Your task to perform on an android device: change the clock style Image 0: 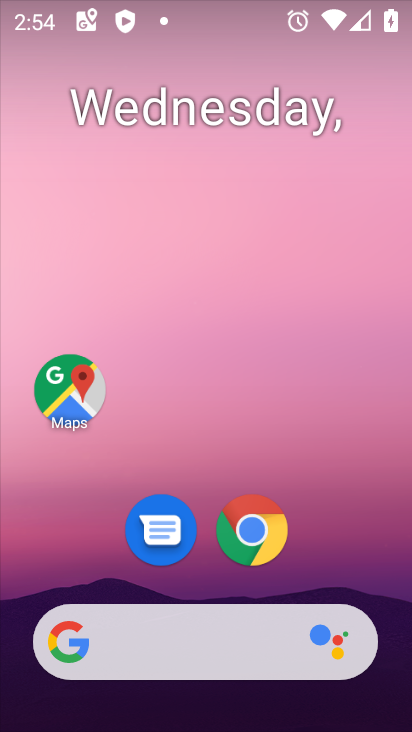
Step 0: click (141, 23)
Your task to perform on an android device: change the clock style Image 1: 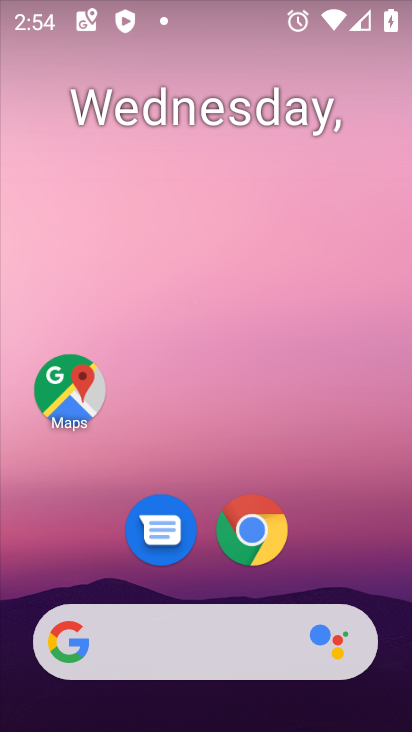
Step 1: drag from (180, 622) to (140, 320)
Your task to perform on an android device: change the clock style Image 2: 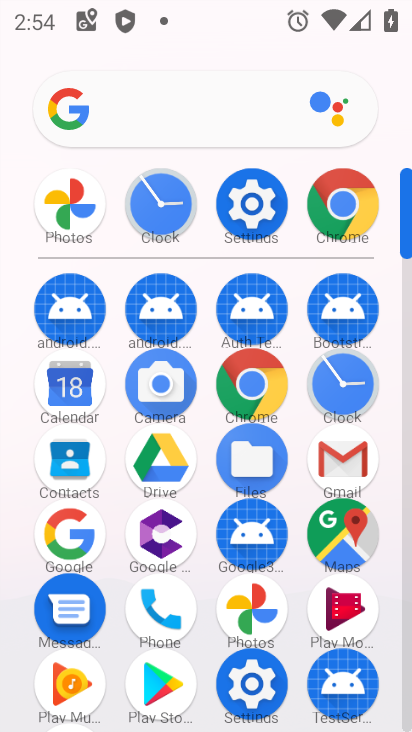
Step 2: click (163, 221)
Your task to perform on an android device: change the clock style Image 3: 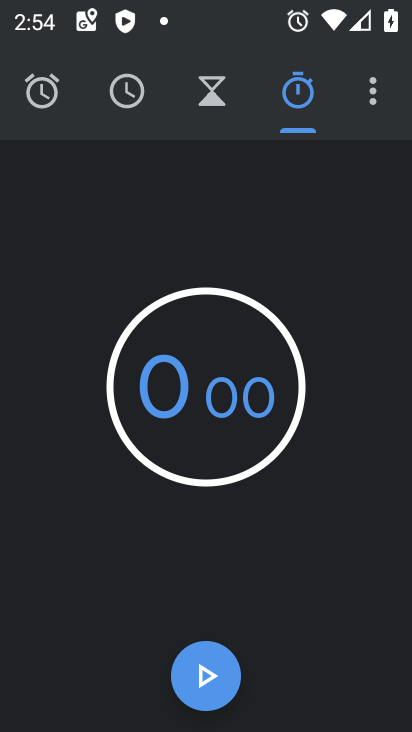
Step 3: click (374, 102)
Your task to perform on an android device: change the clock style Image 4: 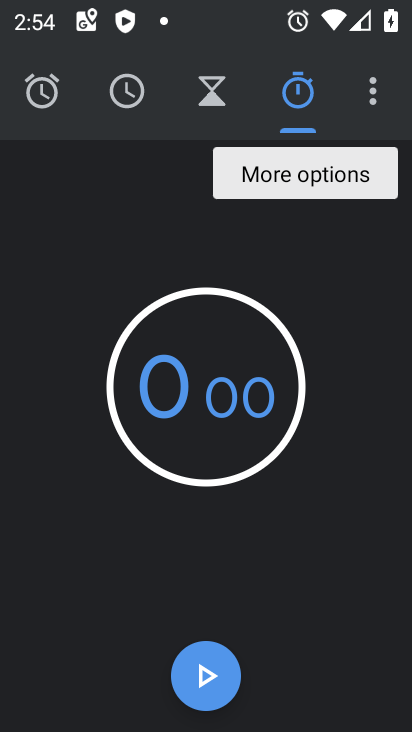
Step 4: click (374, 102)
Your task to perform on an android device: change the clock style Image 5: 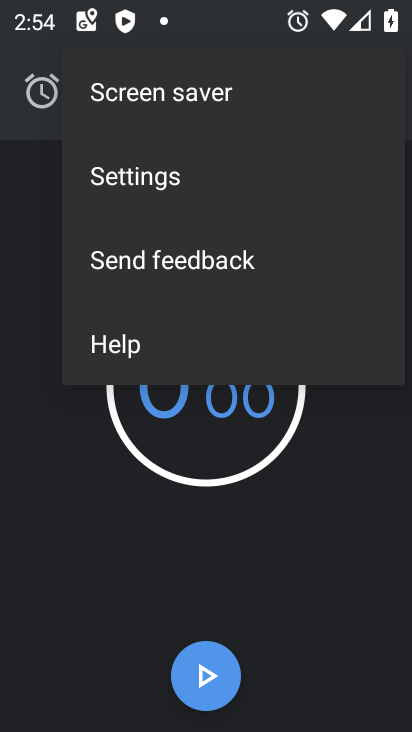
Step 5: click (149, 183)
Your task to perform on an android device: change the clock style Image 6: 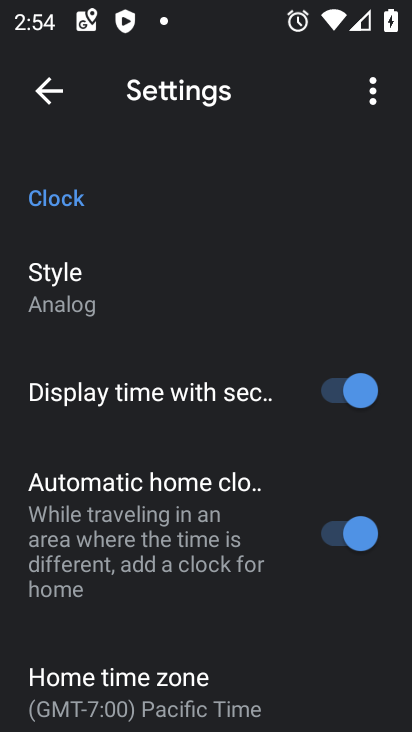
Step 6: click (133, 276)
Your task to perform on an android device: change the clock style Image 7: 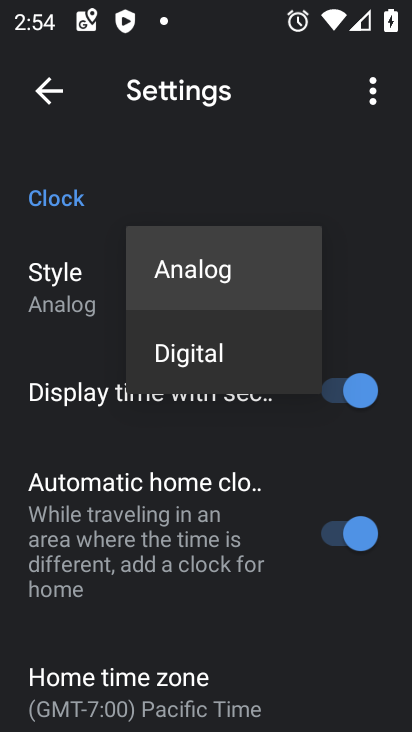
Step 7: click (174, 337)
Your task to perform on an android device: change the clock style Image 8: 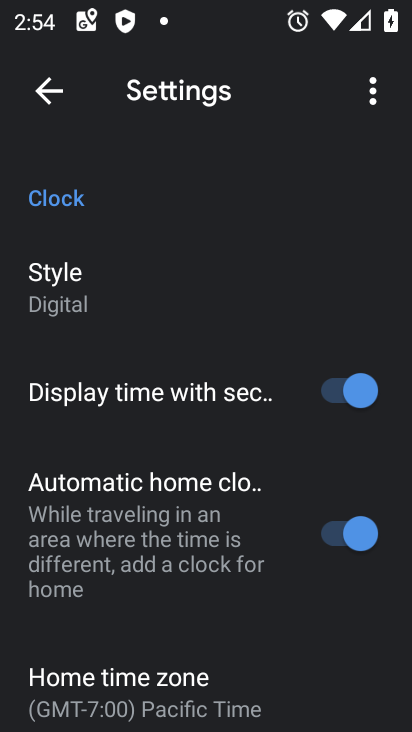
Step 8: task complete